Your task to perform on an android device: turn pop-ups off in chrome Image 0: 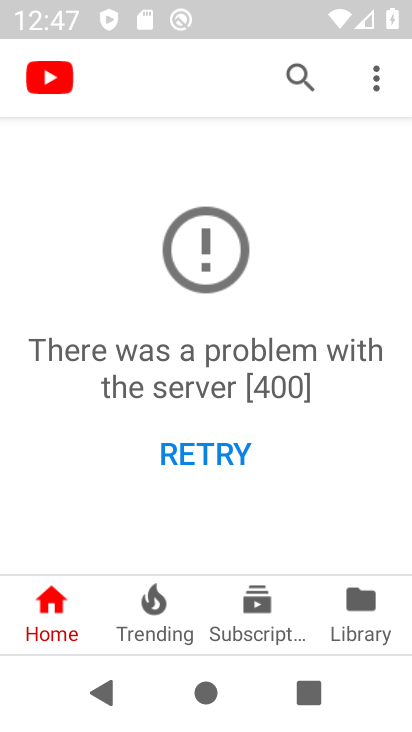
Step 0: press back button
Your task to perform on an android device: turn pop-ups off in chrome Image 1: 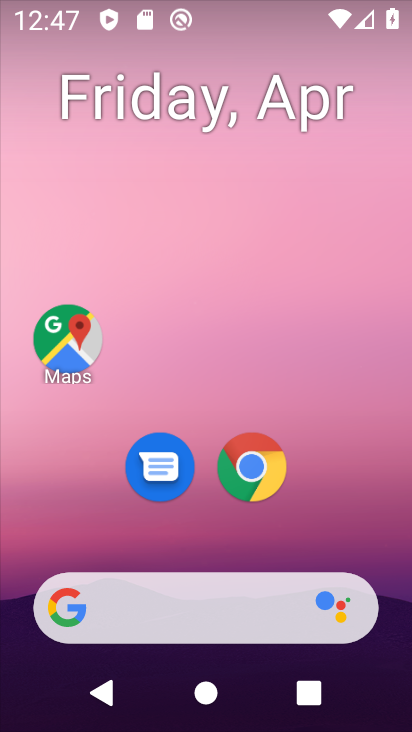
Step 1: drag from (175, 576) to (310, 0)
Your task to perform on an android device: turn pop-ups off in chrome Image 2: 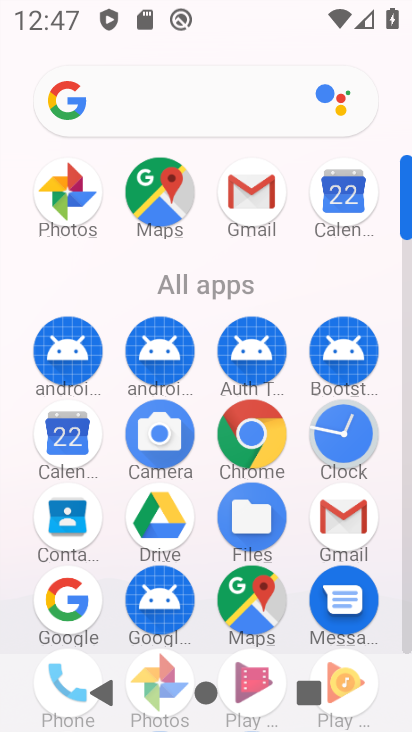
Step 2: drag from (148, 659) to (253, 312)
Your task to perform on an android device: turn pop-ups off in chrome Image 3: 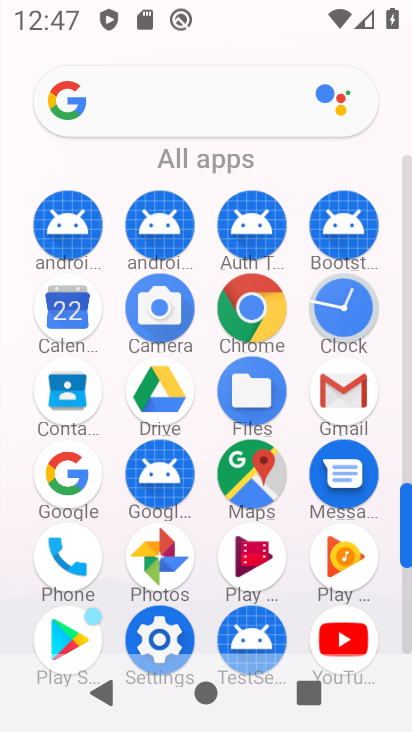
Step 3: click (253, 302)
Your task to perform on an android device: turn pop-ups off in chrome Image 4: 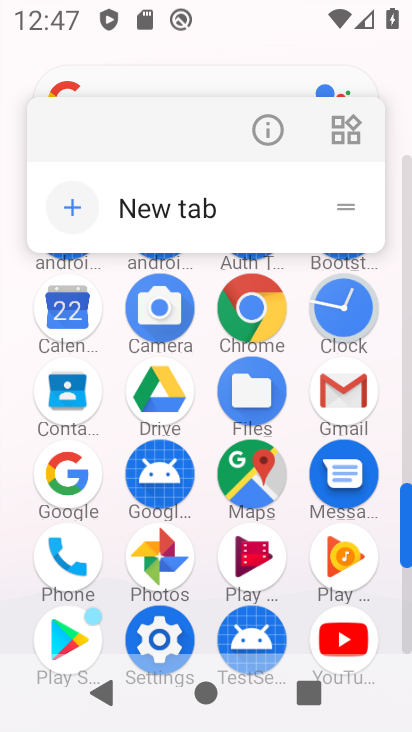
Step 4: click (259, 325)
Your task to perform on an android device: turn pop-ups off in chrome Image 5: 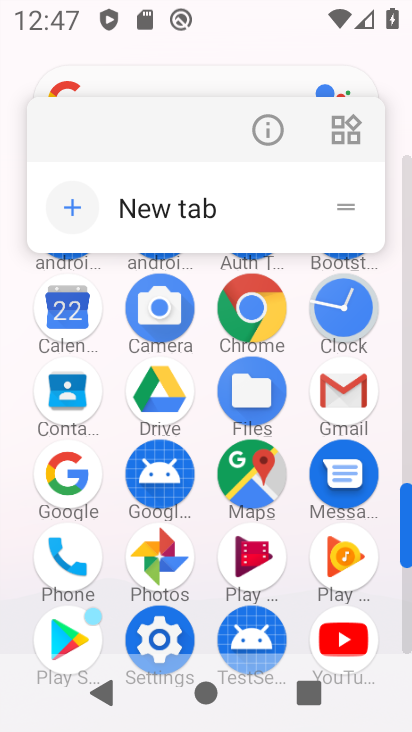
Step 5: click (247, 305)
Your task to perform on an android device: turn pop-ups off in chrome Image 6: 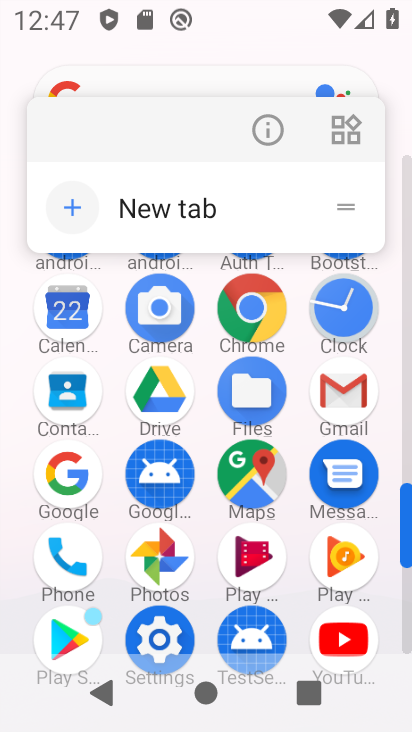
Step 6: click (252, 315)
Your task to perform on an android device: turn pop-ups off in chrome Image 7: 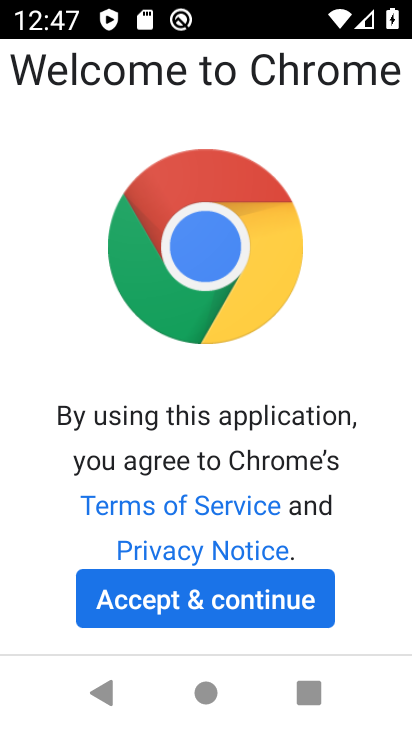
Step 7: click (270, 594)
Your task to perform on an android device: turn pop-ups off in chrome Image 8: 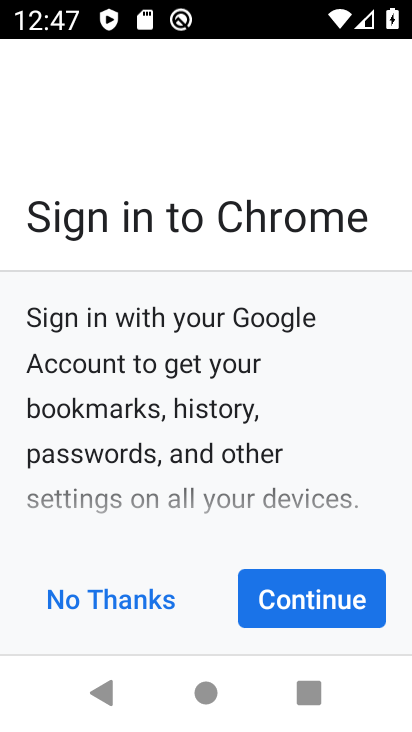
Step 8: click (342, 604)
Your task to perform on an android device: turn pop-ups off in chrome Image 9: 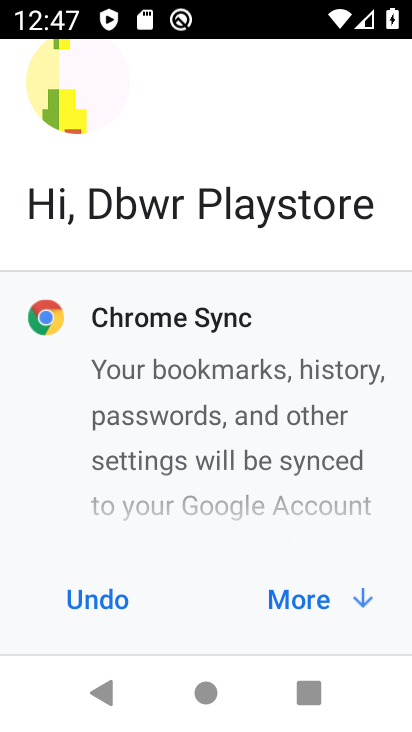
Step 9: click (342, 604)
Your task to perform on an android device: turn pop-ups off in chrome Image 10: 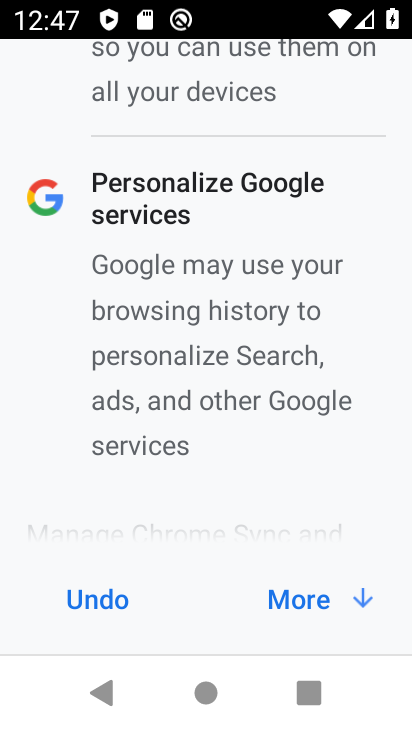
Step 10: click (342, 604)
Your task to perform on an android device: turn pop-ups off in chrome Image 11: 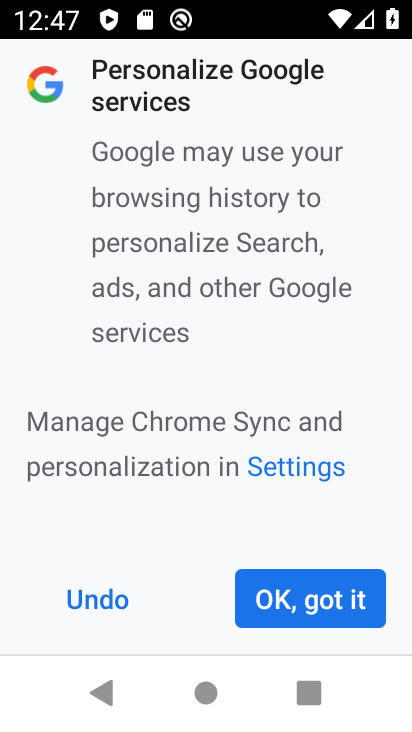
Step 11: click (342, 604)
Your task to perform on an android device: turn pop-ups off in chrome Image 12: 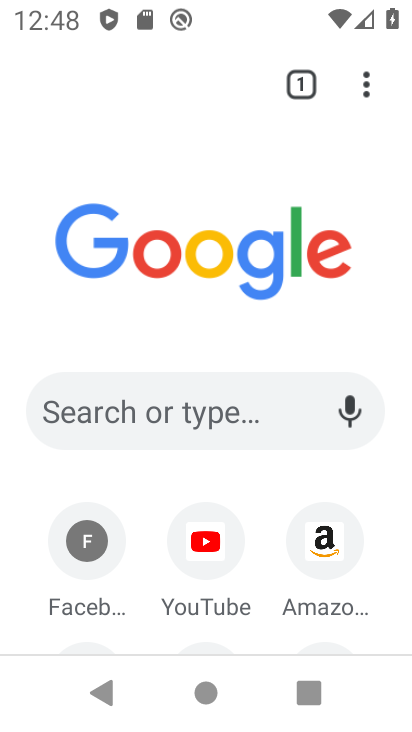
Step 12: click (369, 82)
Your task to perform on an android device: turn pop-ups off in chrome Image 13: 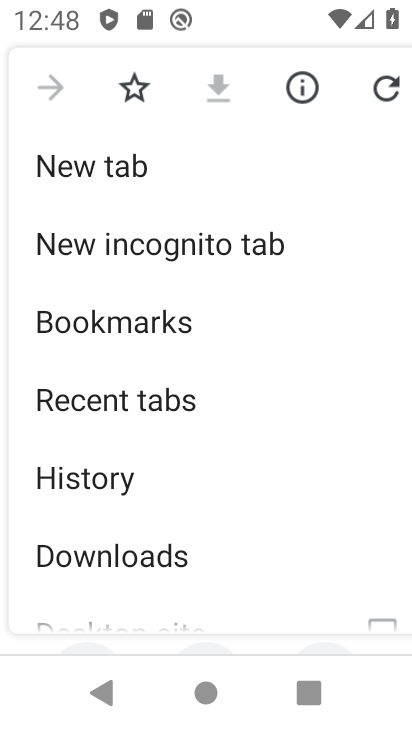
Step 13: drag from (180, 558) to (278, 159)
Your task to perform on an android device: turn pop-ups off in chrome Image 14: 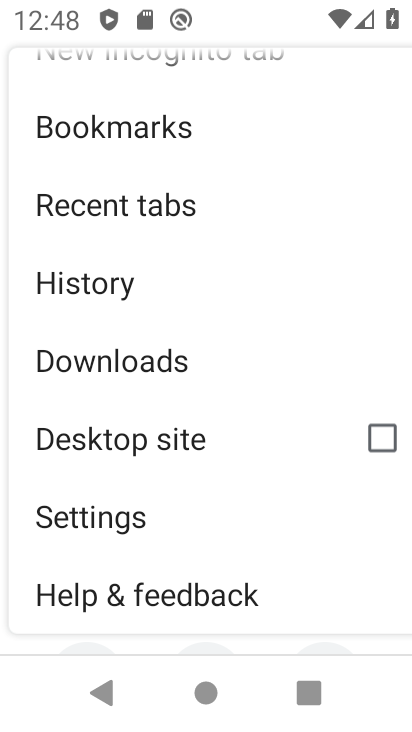
Step 14: click (128, 524)
Your task to perform on an android device: turn pop-ups off in chrome Image 15: 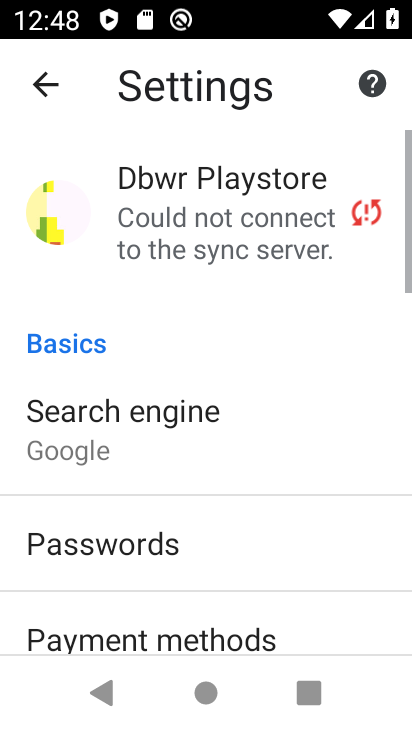
Step 15: drag from (196, 584) to (302, 178)
Your task to perform on an android device: turn pop-ups off in chrome Image 16: 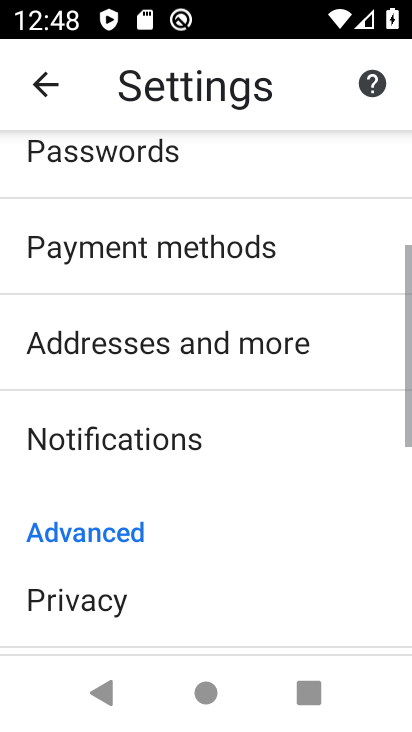
Step 16: drag from (226, 489) to (312, 178)
Your task to perform on an android device: turn pop-ups off in chrome Image 17: 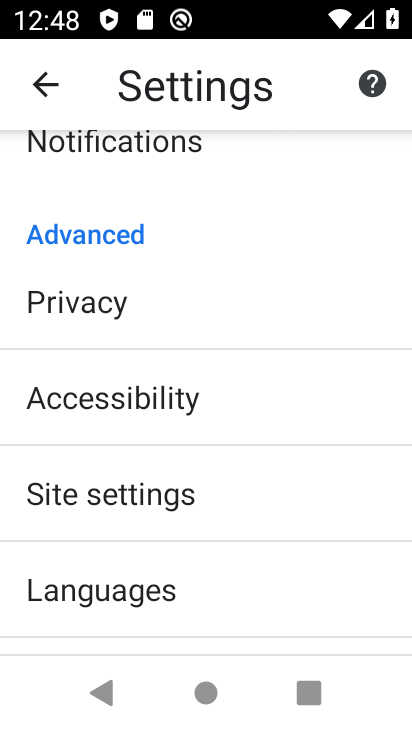
Step 17: drag from (177, 596) to (246, 288)
Your task to perform on an android device: turn pop-ups off in chrome Image 18: 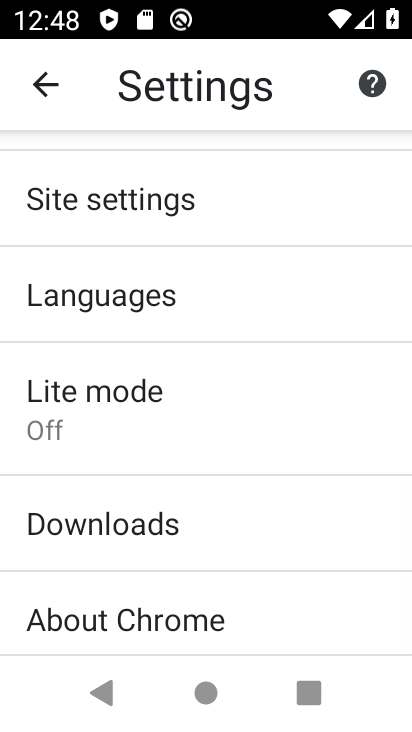
Step 18: click (152, 209)
Your task to perform on an android device: turn pop-ups off in chrome Image 19: 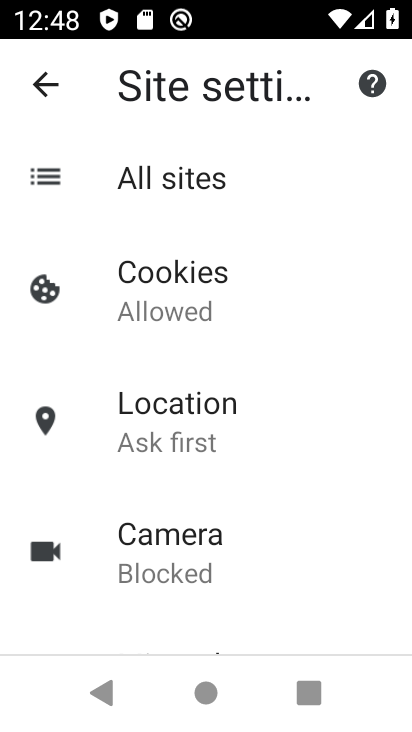
Step 19: drag from (195, 618) to (320, 176)
Your task to perform on an android device: turn pop-ups off in chrome Image 20: 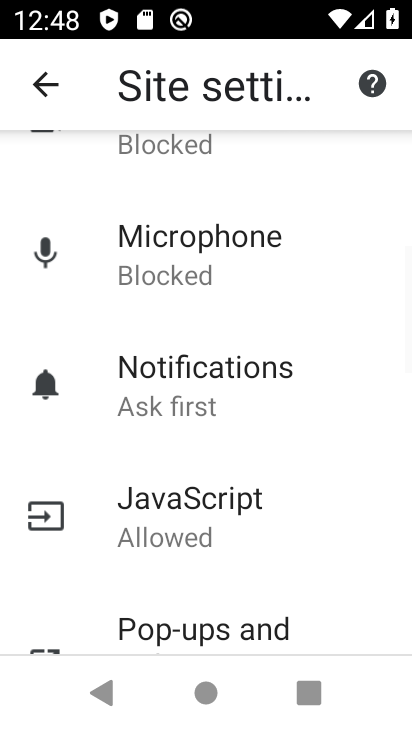
Step 20: drag from (259, 522) to (322, 229)
Your task to perform on an android device: turn pop-ups off in chrome Image 21: 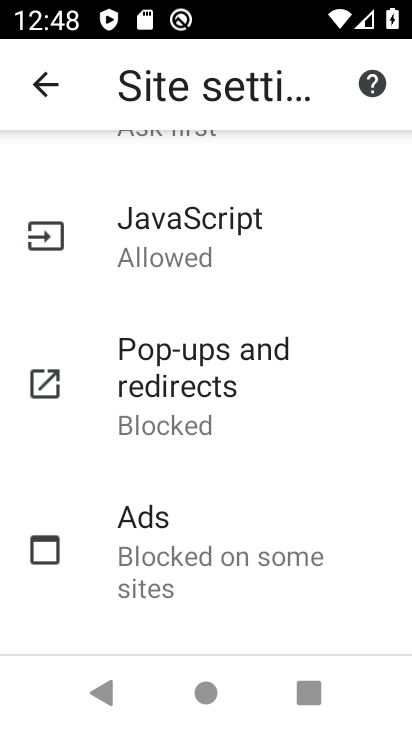
Step 21: click (237, 395)
Your task to perform on an android device: turn pop-ups off in chrome Image 22: 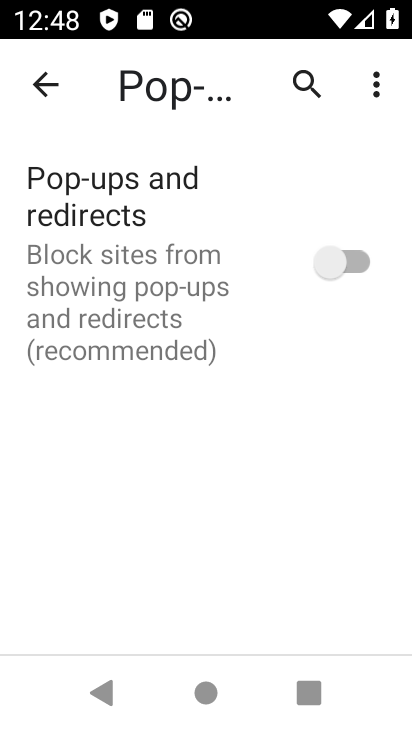
Step 22: task complete